Your task to perform on an android device: Open the contacts Image 0: 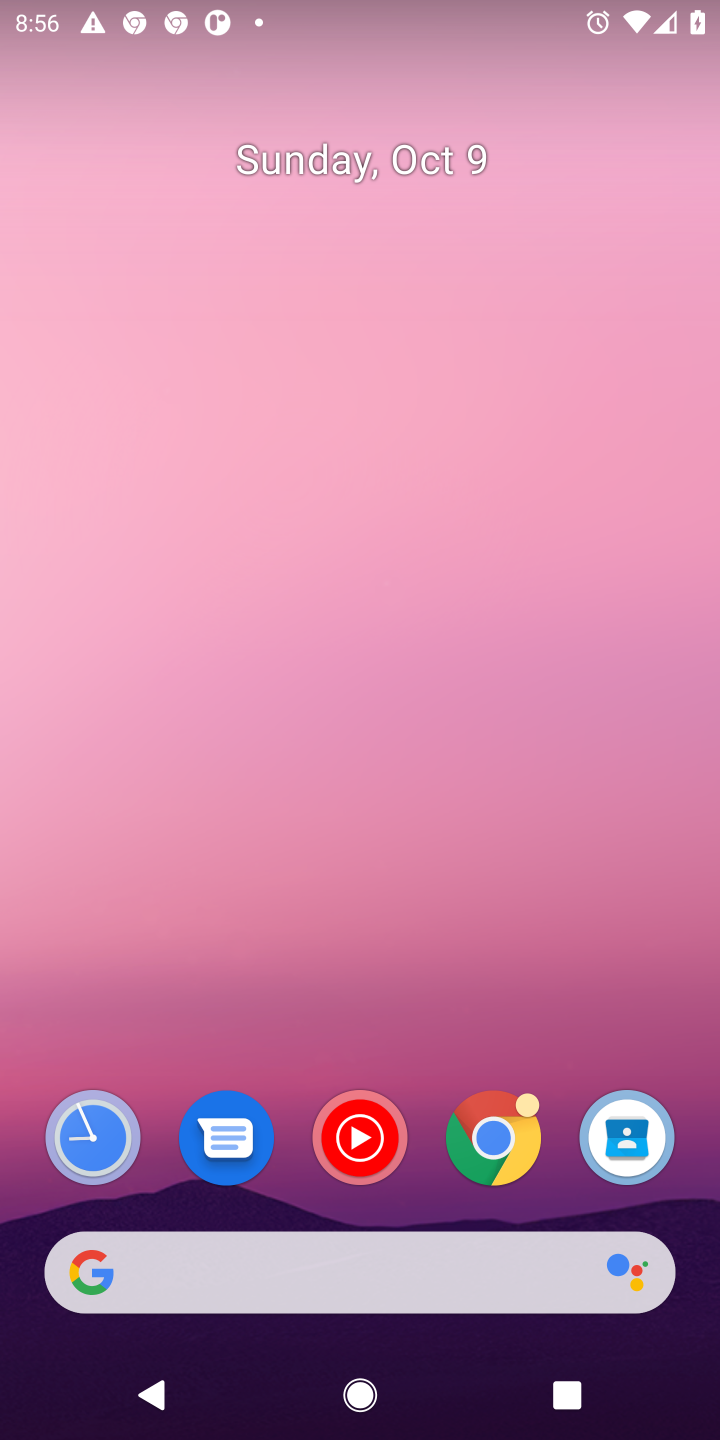
Step 0: drag from (277, 1205) to (310, 457)
Your task to perform on an android device: Open the contacts Image 1: 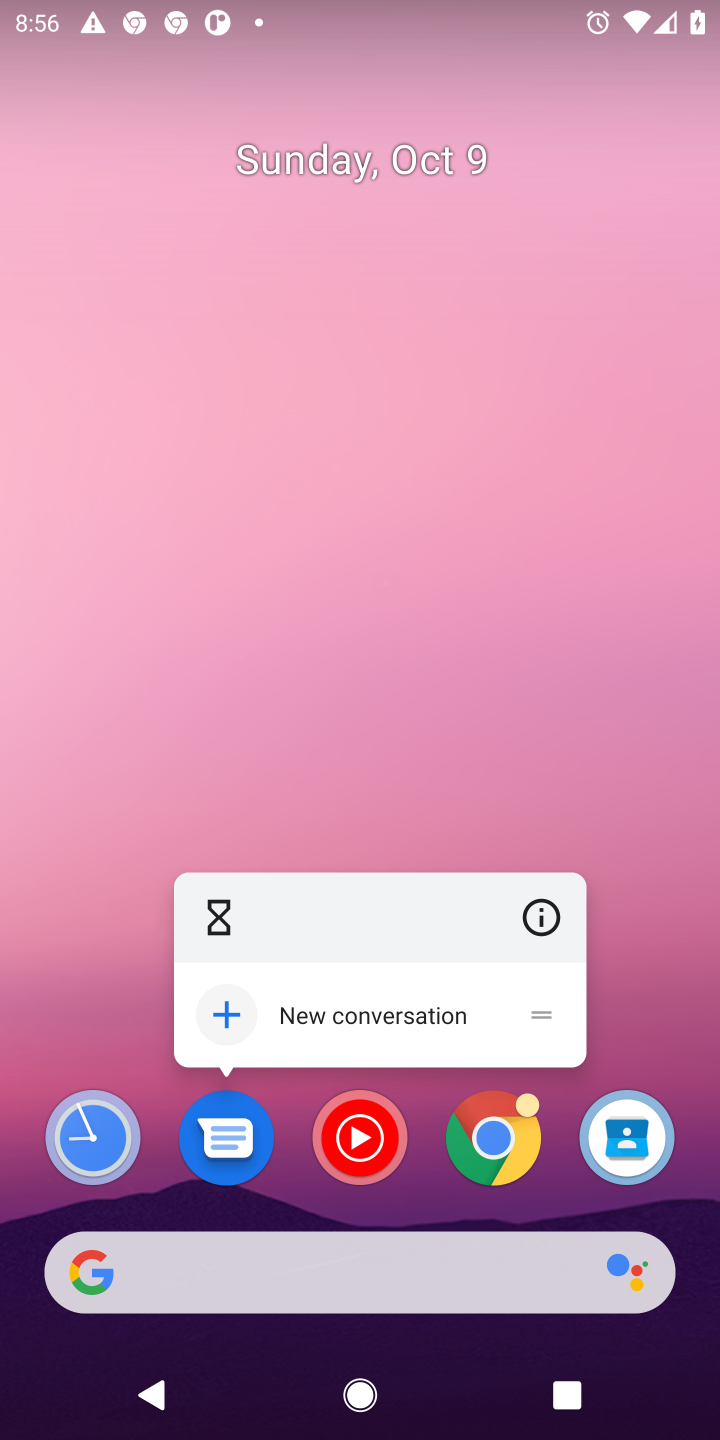
Step 1: click (336, 576)
Your task to perform on an android device: Open the contacts Image 2: 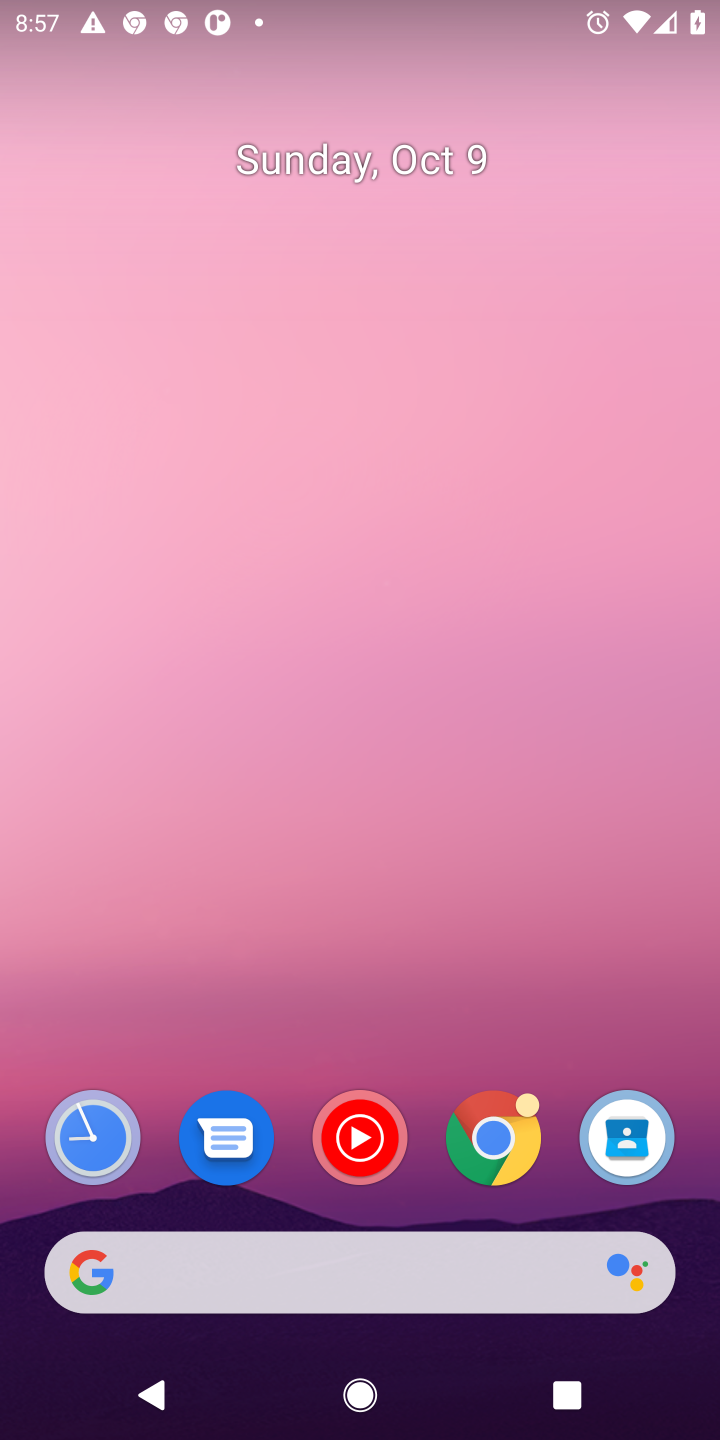
Step 2: drag from (257, 1174) to (290, 297)
Your task to perform on an android device: Open the contacts Image 3: 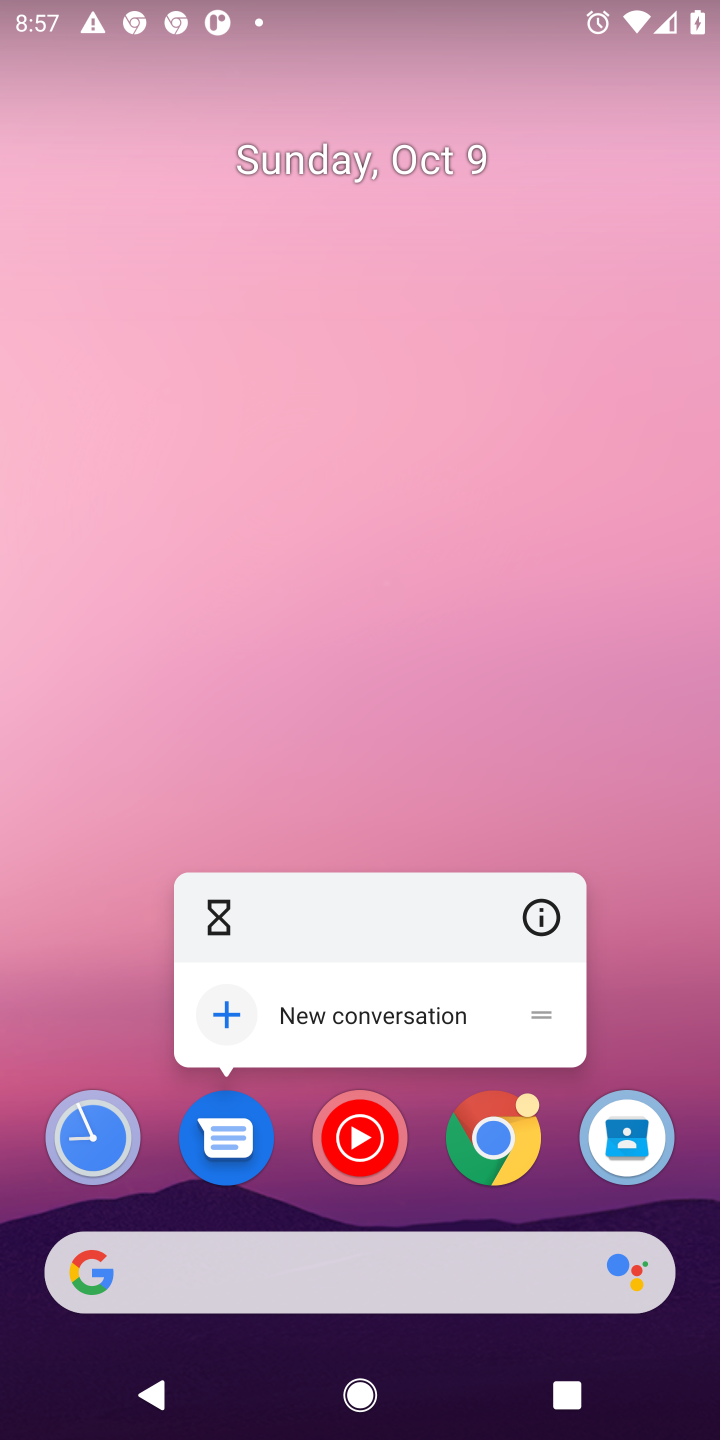
Step 3: click (437, 565)
Your task to perform on an android device: Open the contacts Image 4: 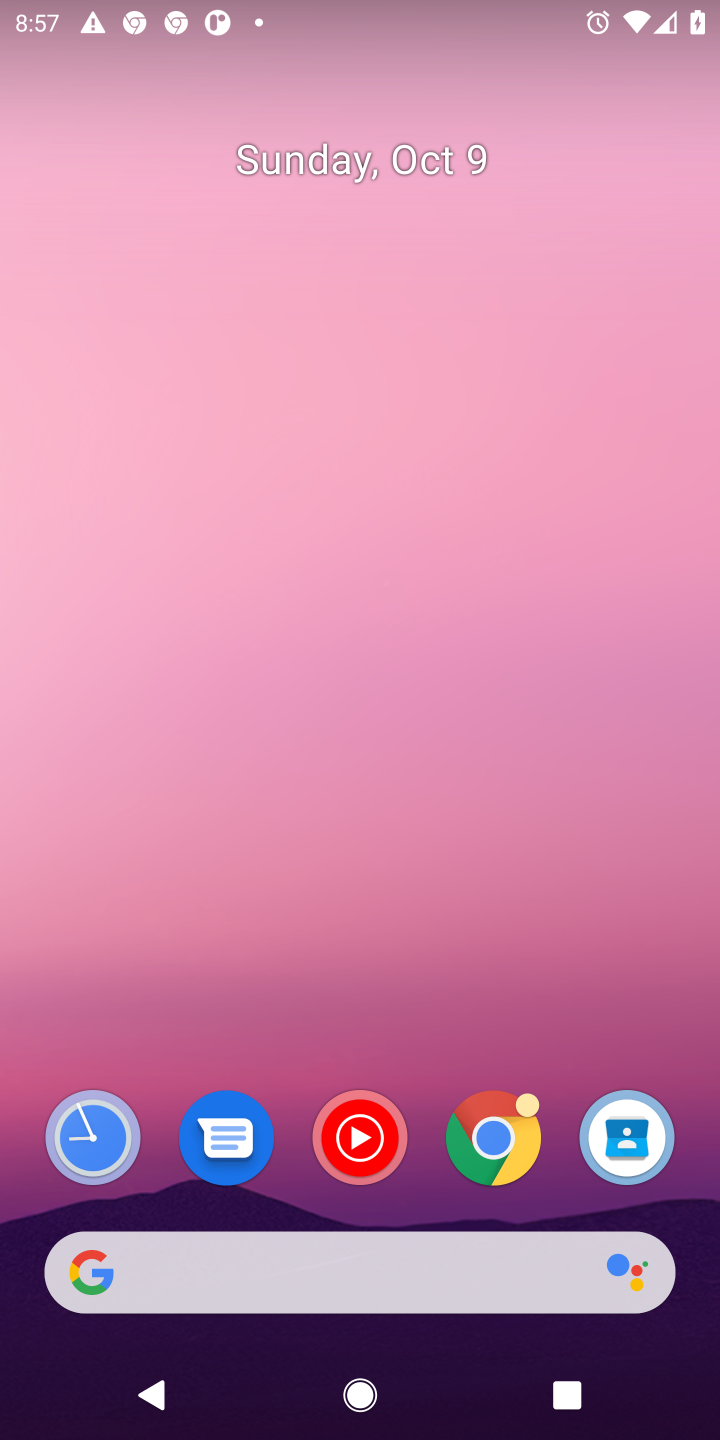
Step 4: drag from (289, 1263) to (340, 425)
Your task to perform on an android device: Open the contacts Image 5: 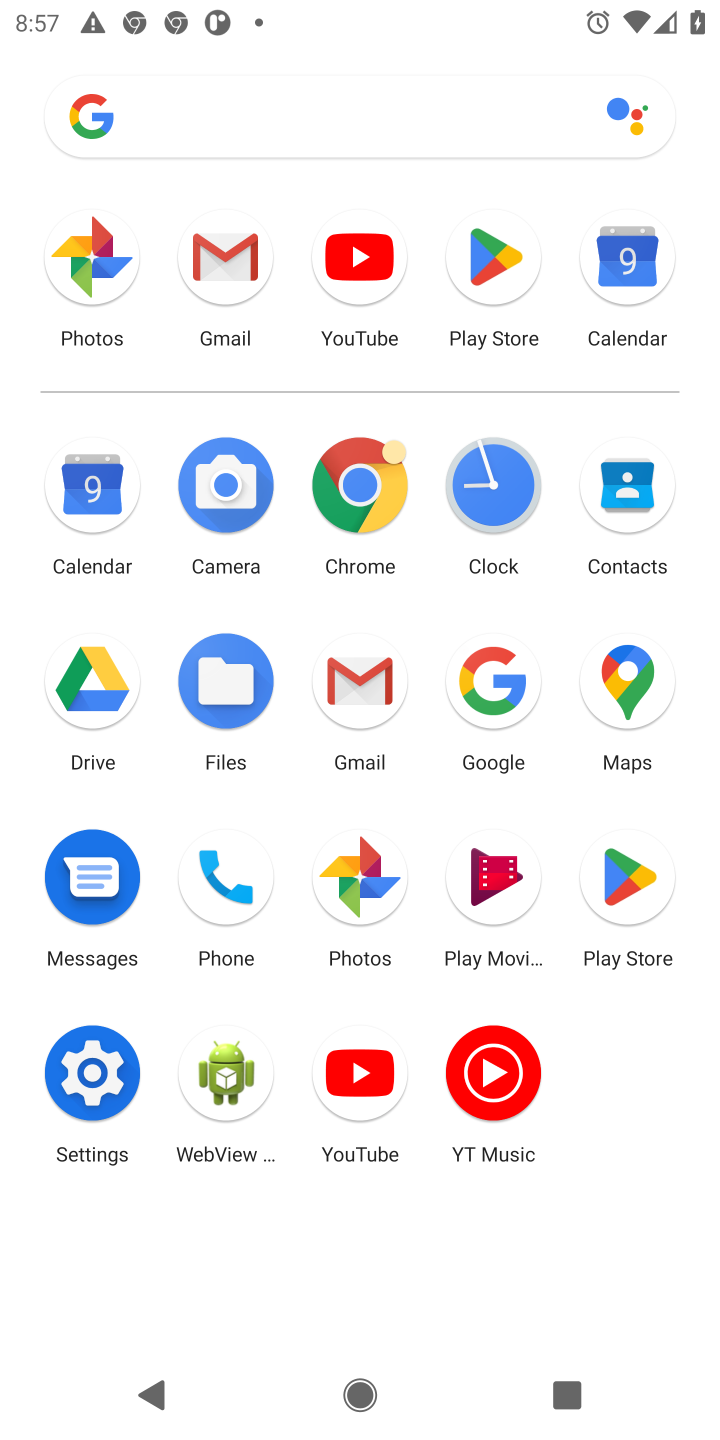
Step 5: click (623, 469)
Your task to perform on an android device: Open the contacts Image 6: 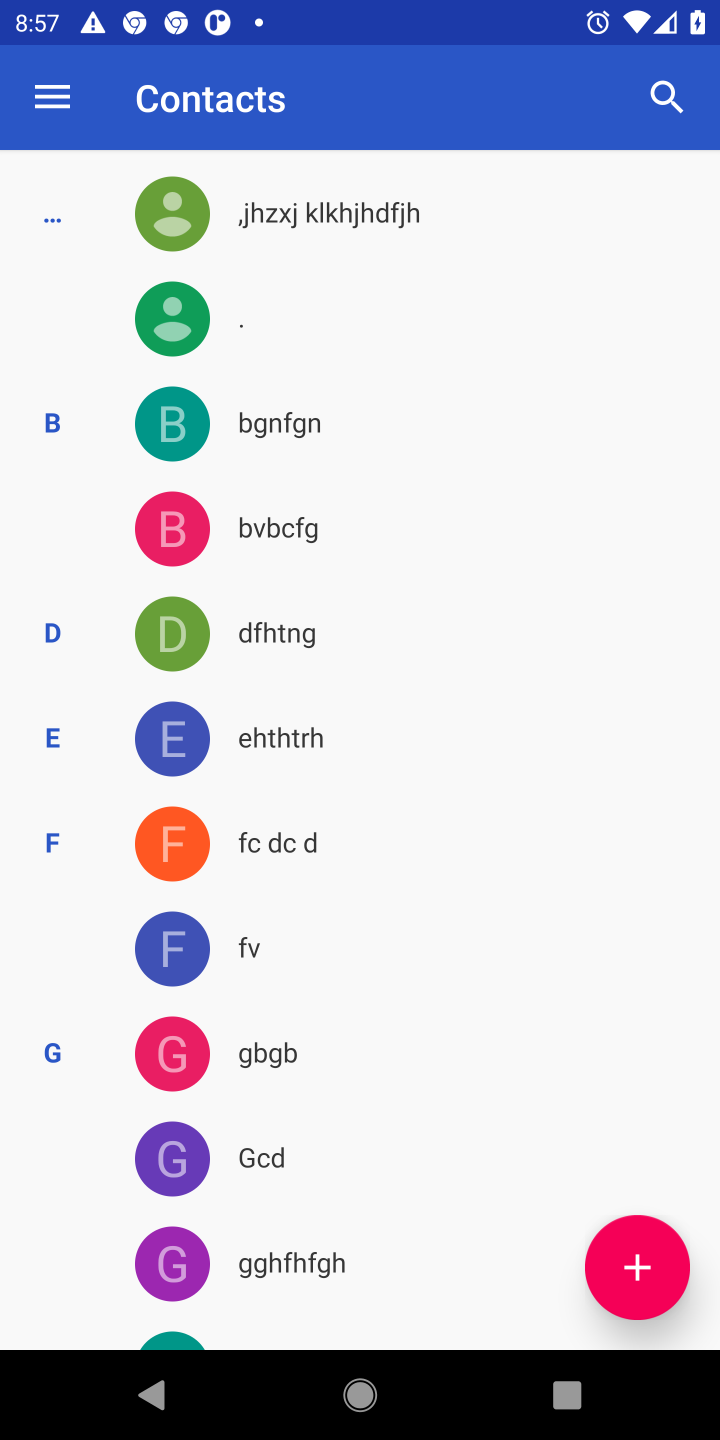
Step 6: task complete